Your task to perform on an android device: check battery use Image 0: 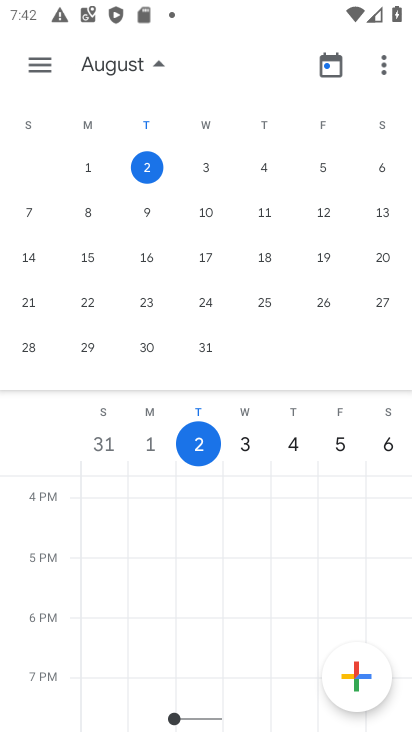
Step 0: press home button
Your task to perform on an android device: check battery use Image 1: 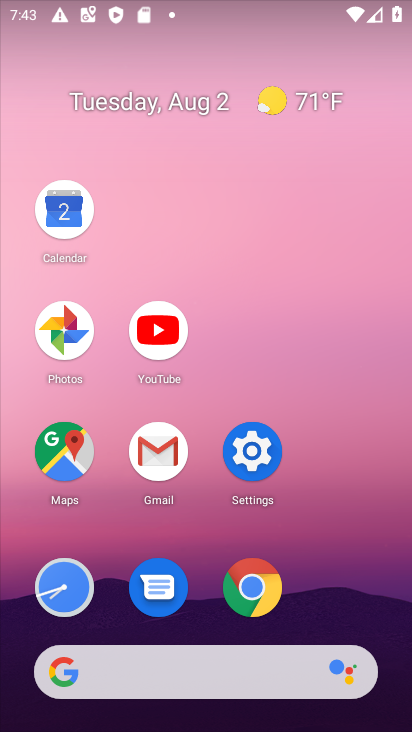
Step 1: click (252, 450)
Your task to perform on an android device: check battery use Image 2: 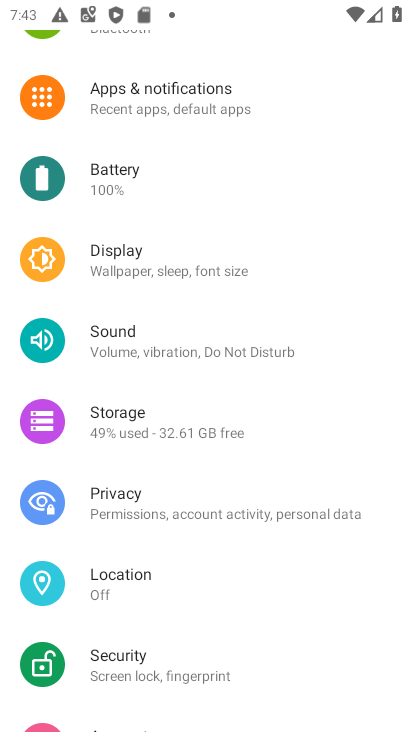
Step 2: click (117, 174)
Your task to perform on an android device: check battery use Image 3: 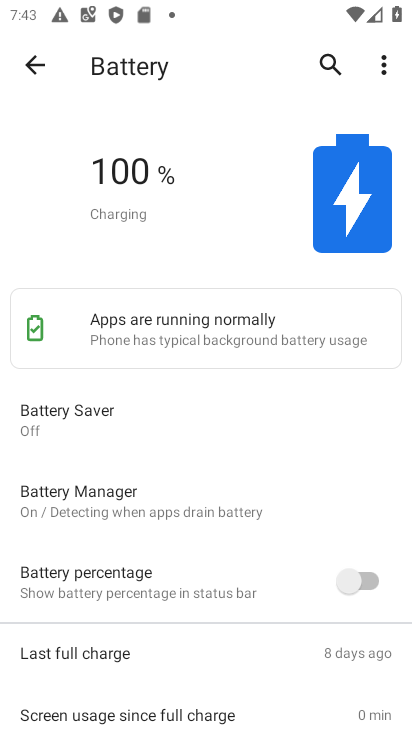
Step 3: task complete